Your task to perform on an android device: set the timer Image 0: 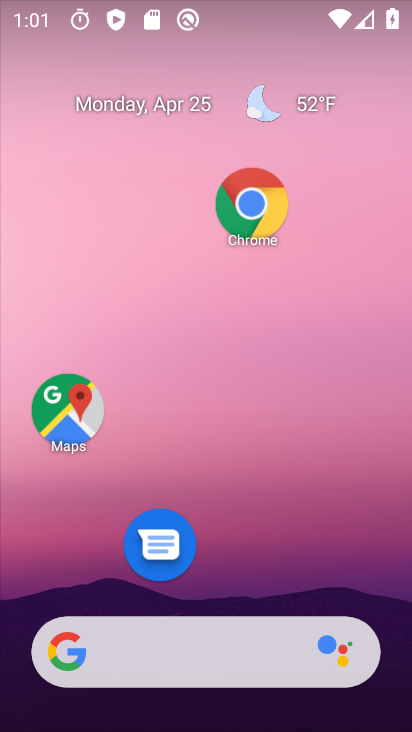
Step 0: drag from (293, 697) to (402, 151)
Your task to perform on an android device: set the timer Image 1: 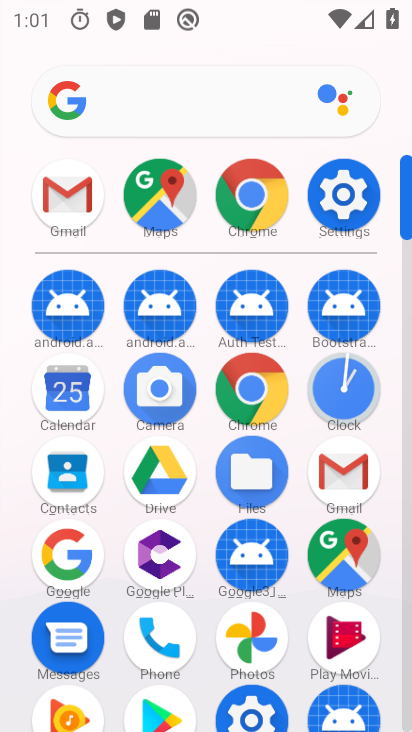
Step 1: click (340, 392)
Your task to perform on an android device: set the timer Image 2: 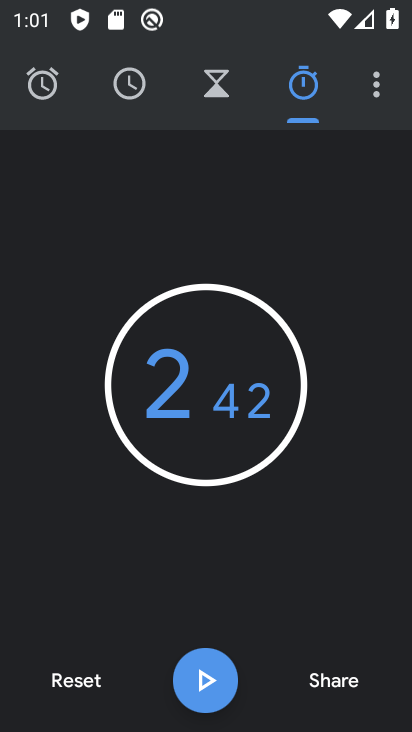
Step 2: click (232, 92)
Your task to perform on an android device: set the timer Image 3: 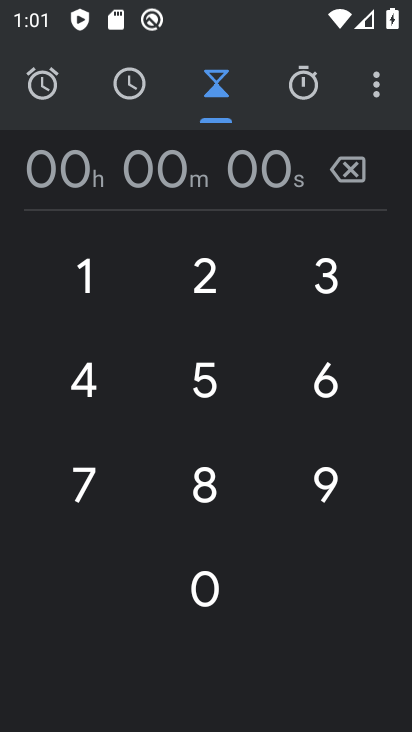
Step 3: click (187, 278)
Your task to perform on an android device: set the timer Image 4: 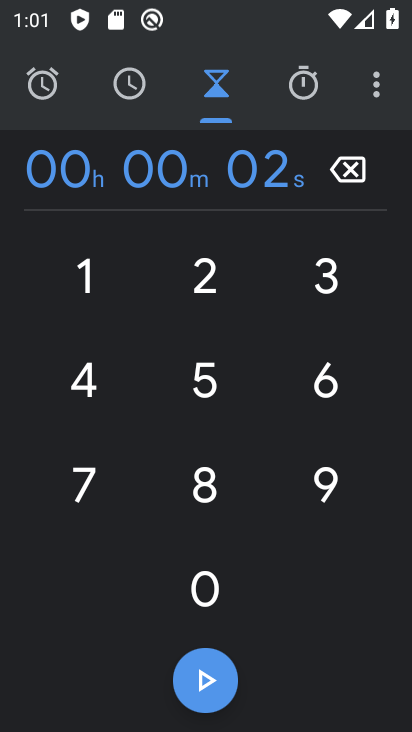
Step 4: click (192, 386)
Your task to perform on an android device: set the timer Image 5: 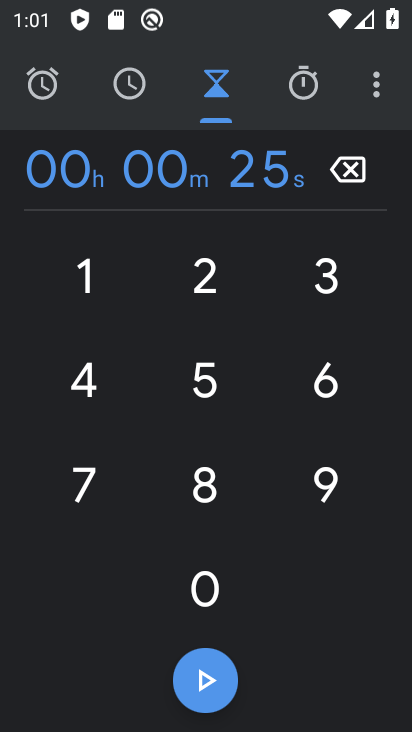
Step 5: click (202, 470)
Your task to perform on an android device: set the timer Image 6: 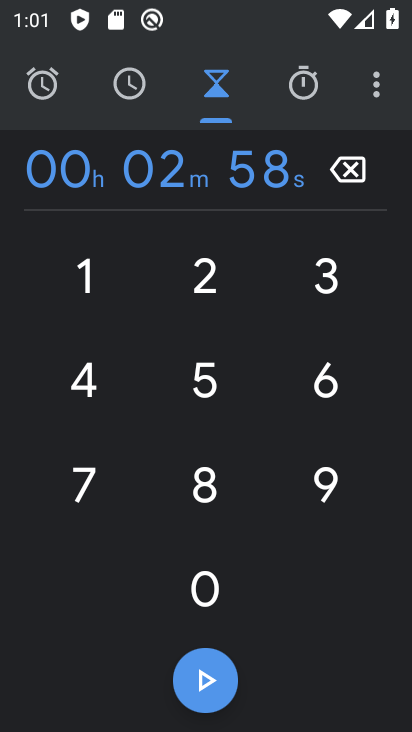
Step 6: click (117, 384)
Your task to perform on an android device: set the timer Image 7: 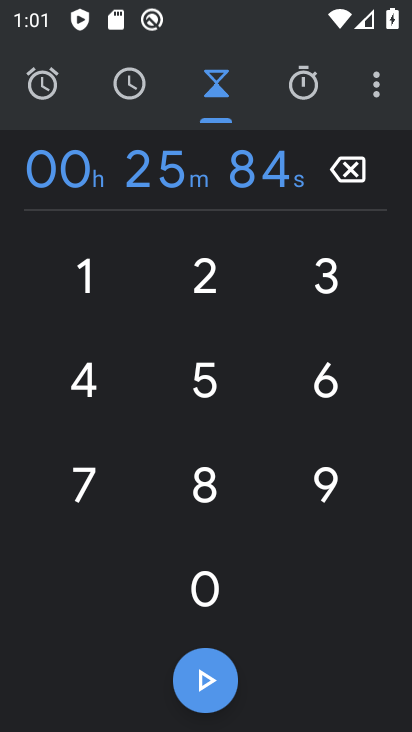
Step 7: click (112, 291)
Your task to perform on an android device: set the timer Image 8: 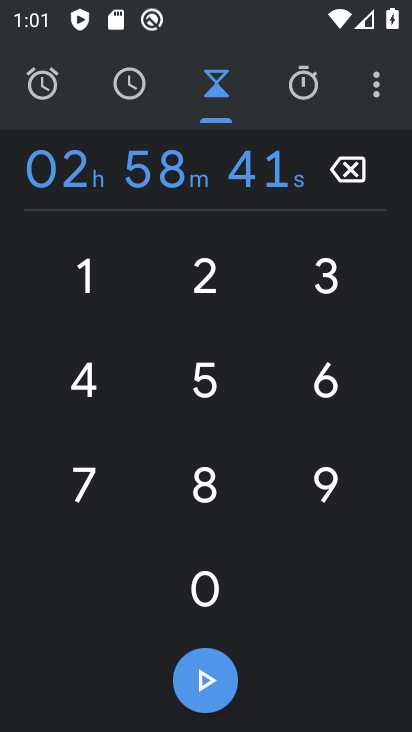
Step 8: click (215, 683)
Your task to perform on an android device: set the timer Image 9: 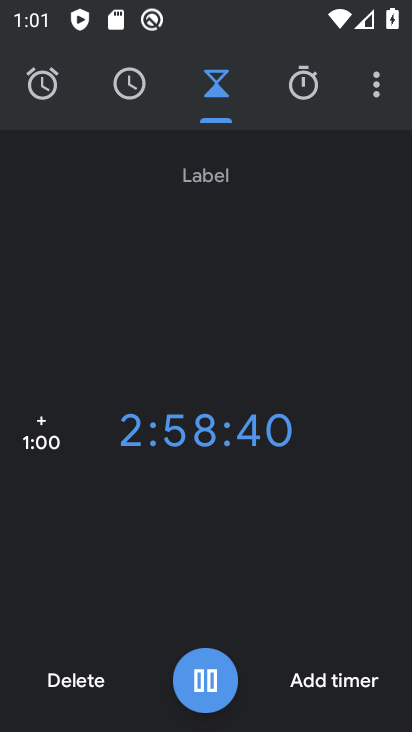
Step 9: click (220, 674)
Your task to perform on an android device: set the timer Image 10: 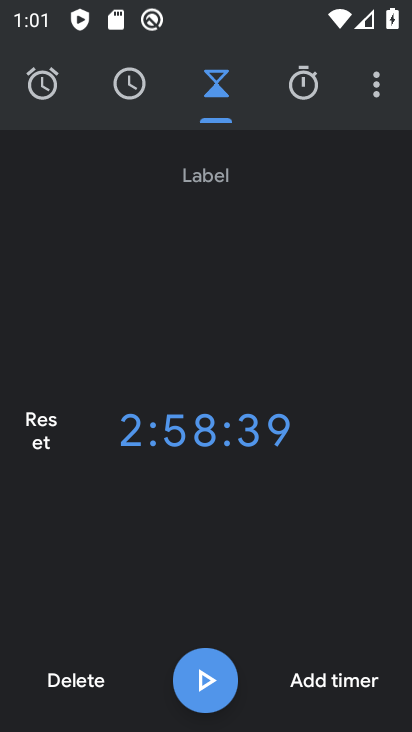
Step 10: task complete